Your task to perform on an android device: Go to CNN.com Image 0: 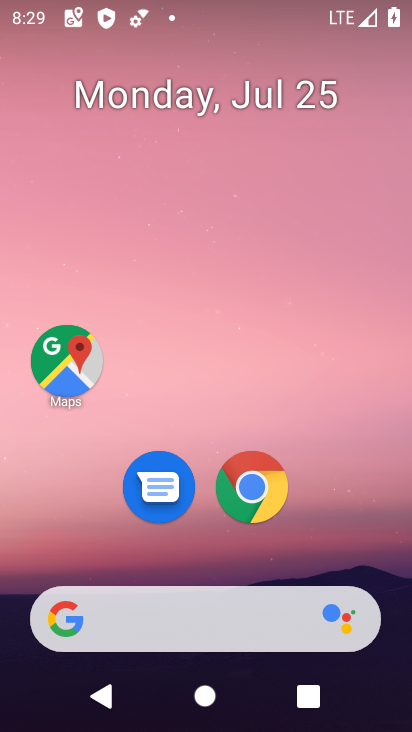
Step 0: click (251, 481)
Your task to perform on an android device: Go to CNN.com Image 1: 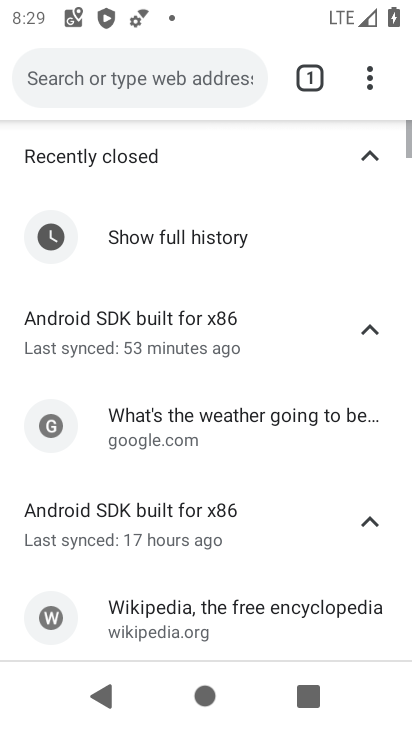
Step 1: click (301, 71)
Your task to perform on an android device: Go to CNN.com Image 2: 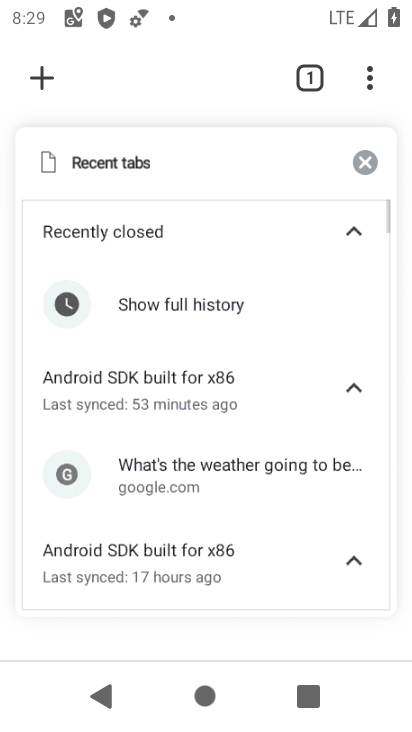
Step 2: click (44, 73)
Your task to perform on an android device: Go to CNN.com Image 3: 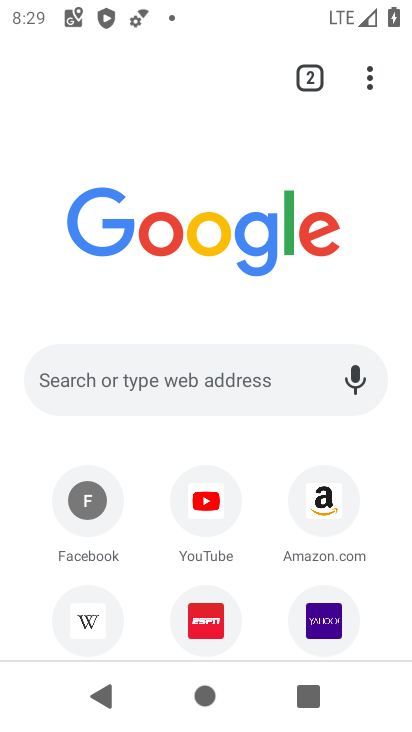
Step 3: click (109, 365)
Your task to perform on an android device: Go to CNN.com Image 4: 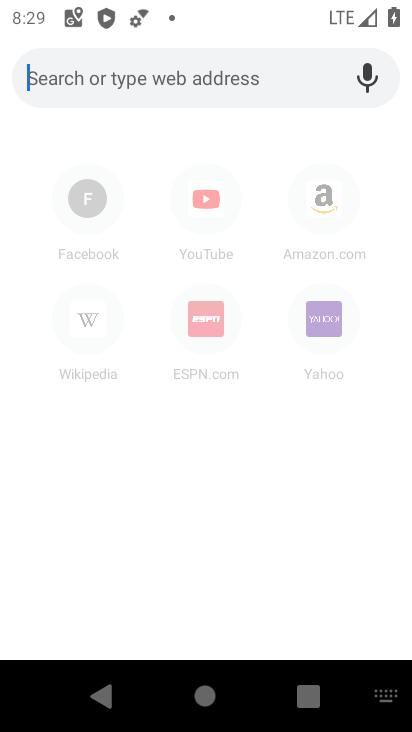
Step 4: type "cnn.com"
Your task to perform on an android device: Go to CNN.com Image 5: 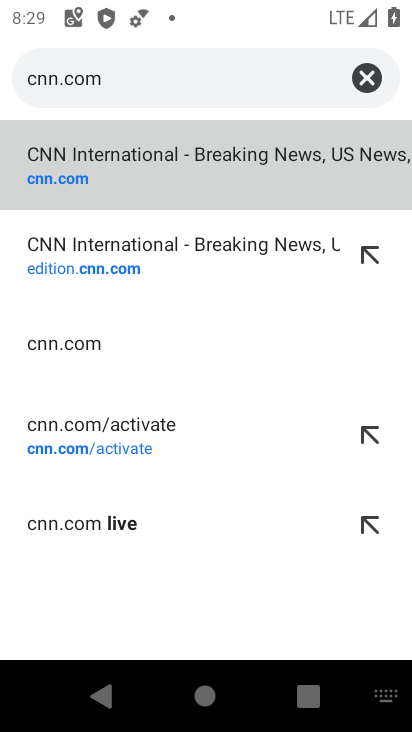
Step 5: click (69, 165)
Your task to perform on an android device: Go to CNN.com Image 6: 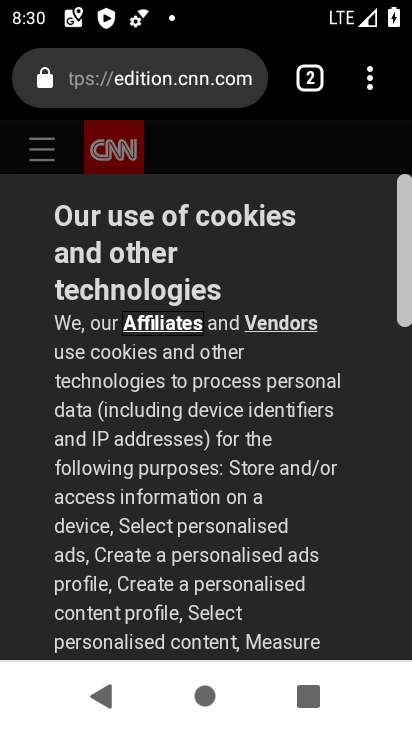
Step 6: task complete